Your task to perform on an android device: What's the weather today? Image 0: 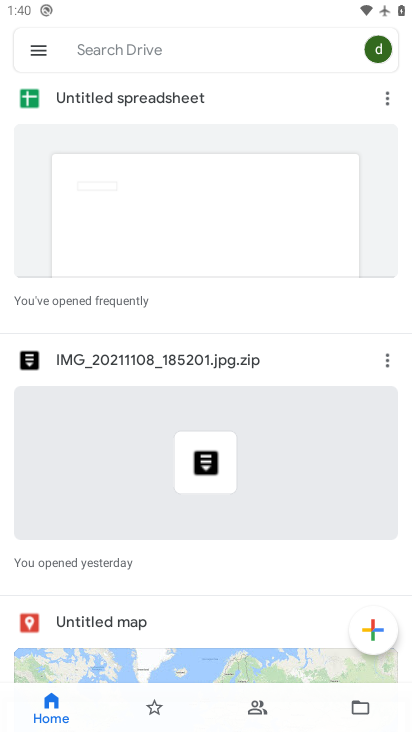
Step 0: press home button
Your task to perform on an android device: What's the weather today? Image 1: 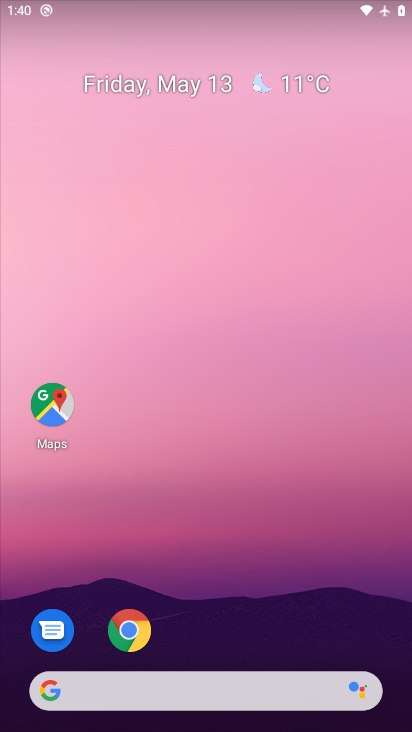
Step 1: drag from (279, 607) to (253, 252)
Your task to perform on an android device: What's the weather today? Image 2: 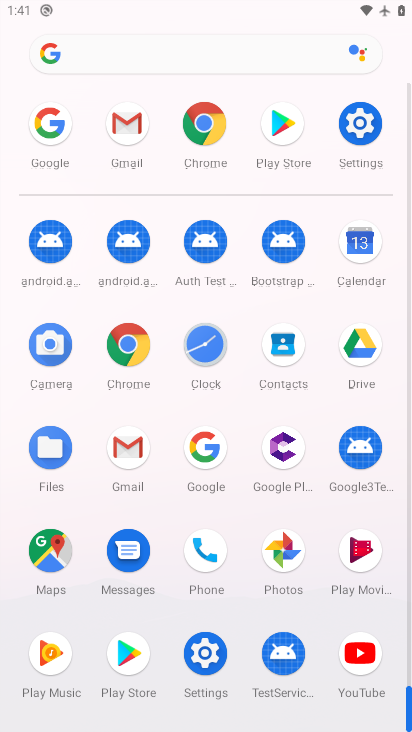
Step 2: drag from (210, 629) to (231, 179)
Your task to perform on an android device: What's the weather today? Image 3: 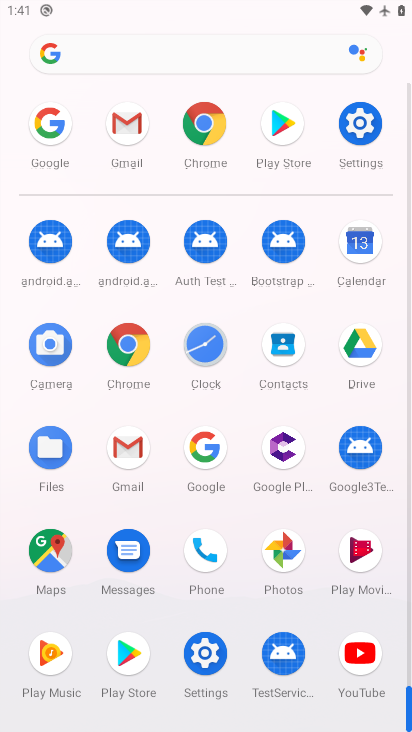
Step 3: click (208, 454)
Your task to perform on an android device: What's the weather today? Image 4: 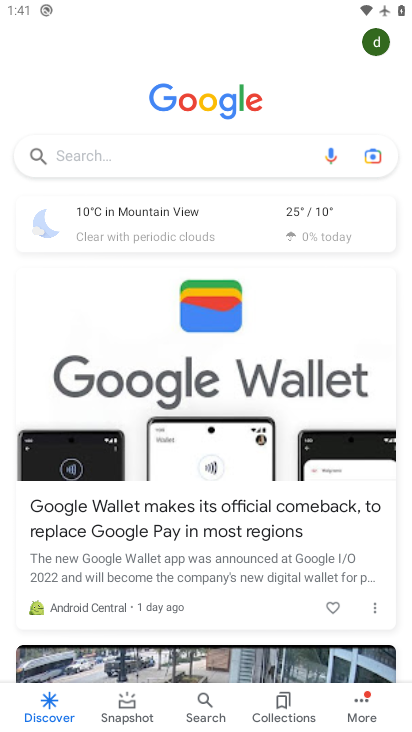
Step 4: click (192, 227)
Your task to perform on an android device: What's the weather today? Image 5: 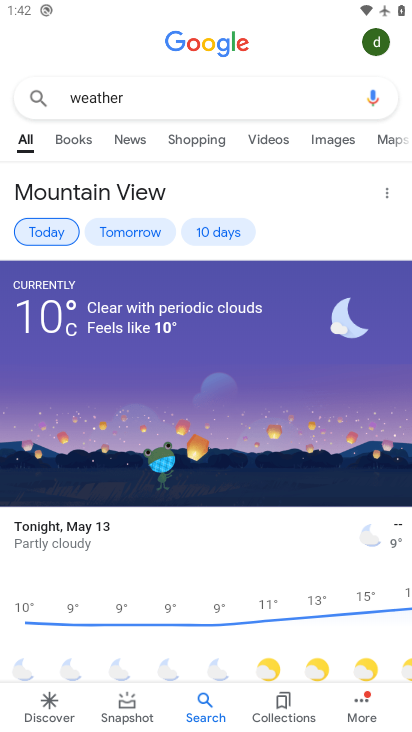
Step 5: task complete